Your task to perform on an android device: Open the calendar and show me this week's events? Image 0: 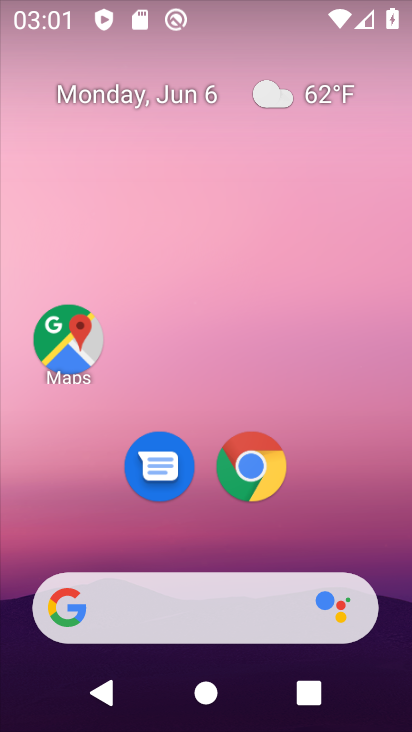
Step 0: drag from (363, 504) to (340, 130)
Your task to perform on an android device: Open the calendar and show me this week's events? Image 1: 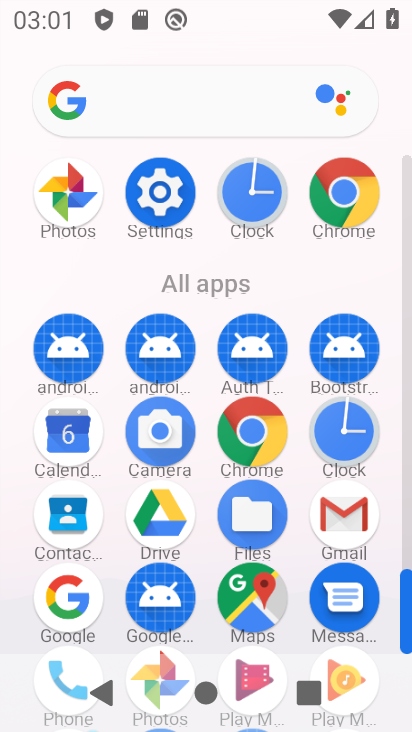
Step 1: drag from (295, 551) to (307, 243)
Your task to perform on an android device: Open the calendar and show me this week's events? Image 2: 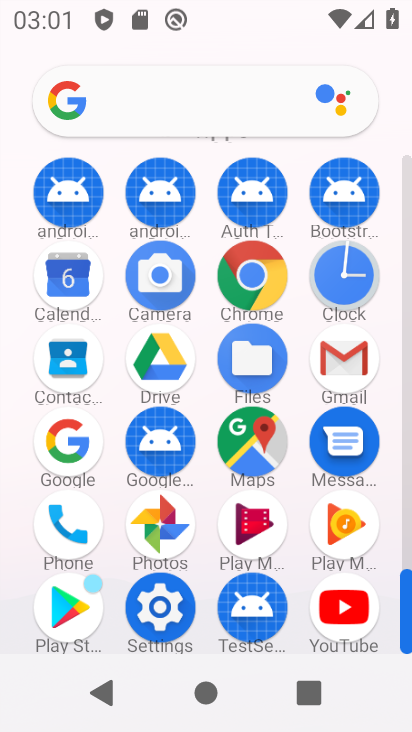
Step 2: click (79, 280)
Your task to perform on an android device: Open the calendar and show me this week's events? Image 3: 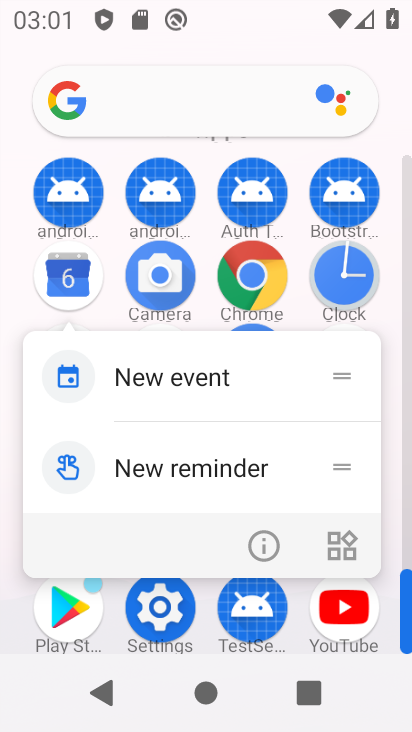
Step 3: click (68, 284)
Your task to perform on an android device: Open the calendar and show me this week's events? Image 4: 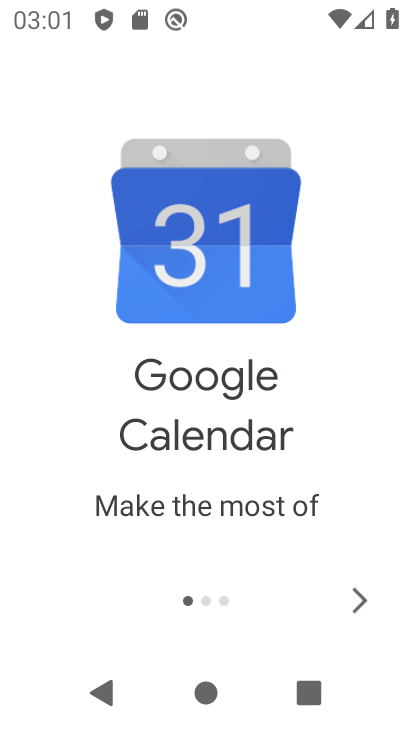
Step 4: drag from (68, 278) to (240, 443)
Your task to perform on an android device: Open the calendar and show me this week's events? Image 5: 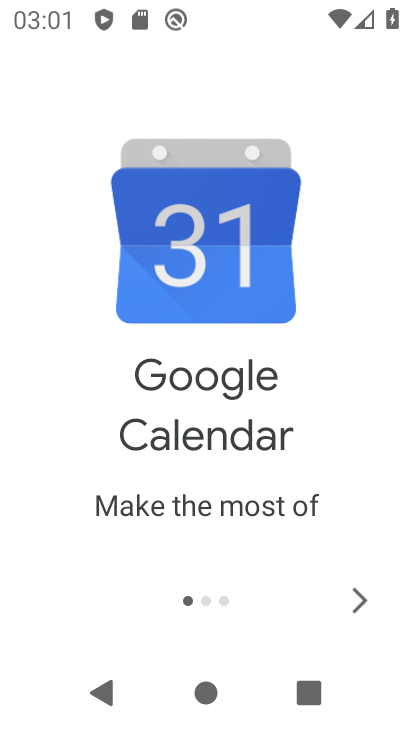
Step 5: click (355, 589)
Your task to perform on an android device: Open the calendar and show me this week's events? Image 6: 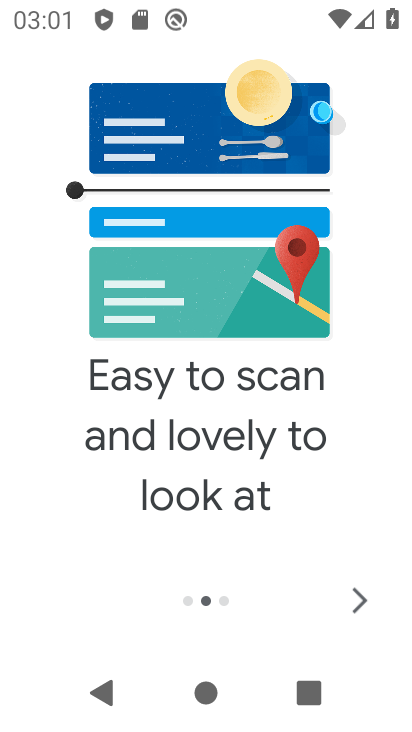
Step 6: click (355, 589)
Your task to perform on an android device: Open the calendar and show me this week's events? Image 7: 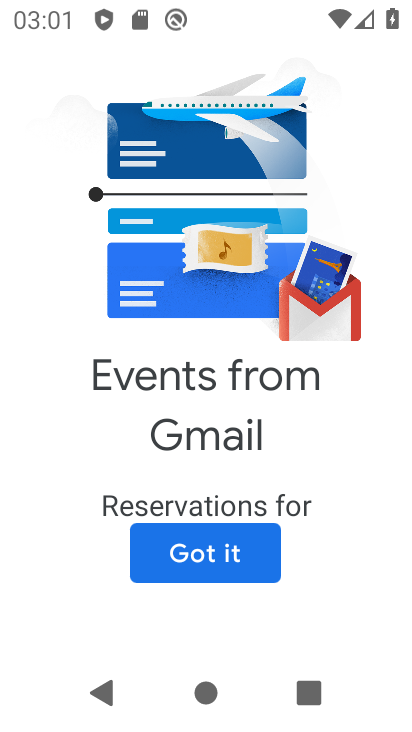
Step 7: click (245, 547)
Your task to perform on an android device: Open the calendar and show me this week's events? Image 8: 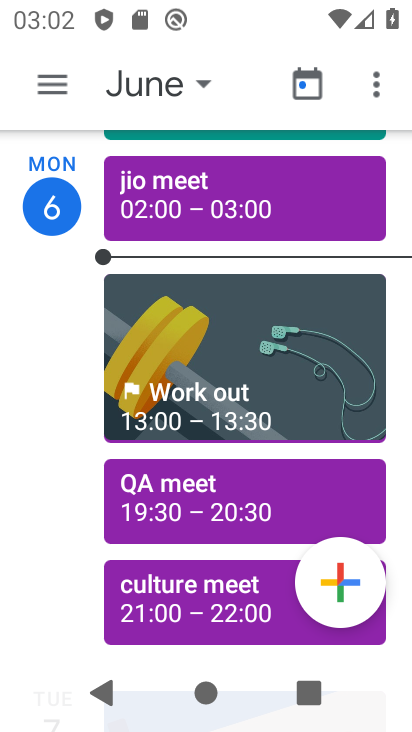
Step 8: click (154, 85)
Your task to perform on an android device: Open the calendar and show me this week's events? Image 9: 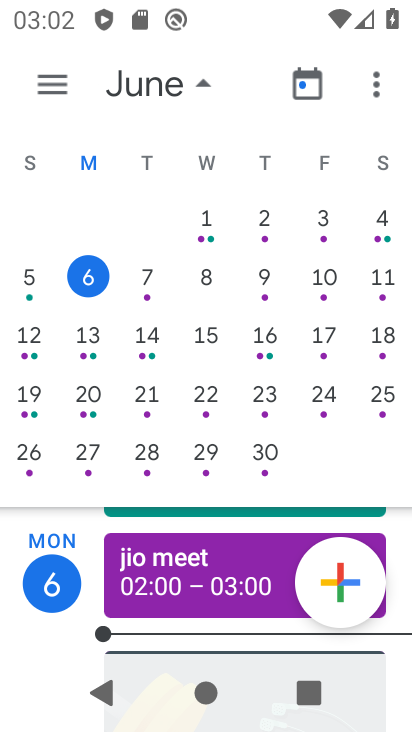
Step 9: click (48, 86)
Your task to perform on an android device: Open the calendar and show me this week's events? Image 10: 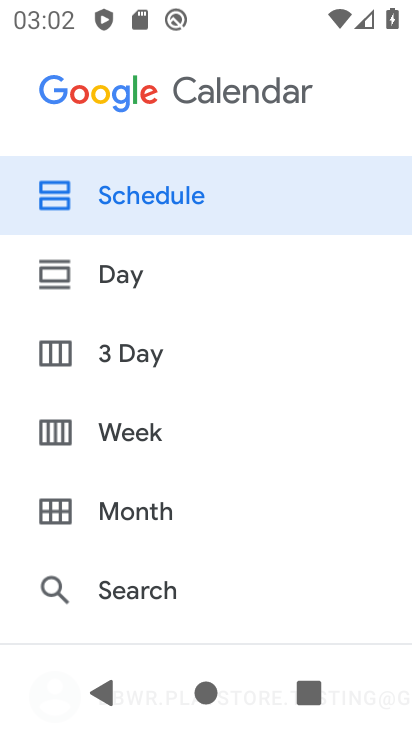
Step 10: click (130, 421)
Your task to perform on an android device: Open the calendar and show me this week's events? Image 11: 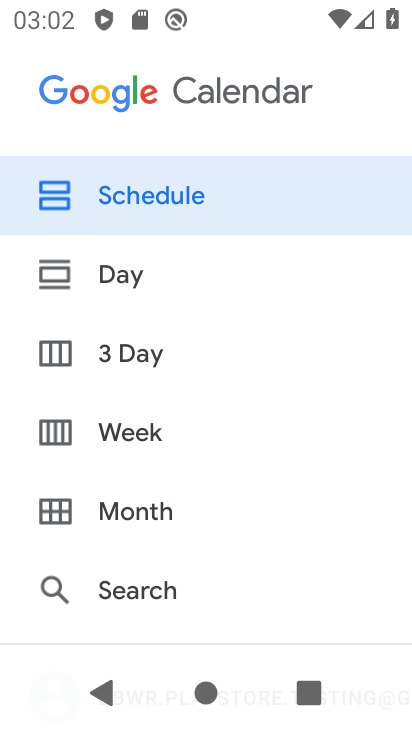
Step 11: click (147, 427)
Your task to perform on an android device: Open the calendar and show me this week's events? Image 12: 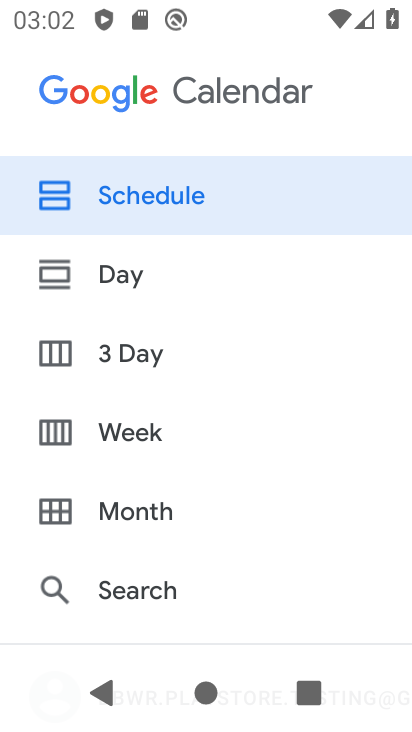
Step 12: click (143, 426)
Your task to perform on an android device: Open the calendar and show me this week's events? Image 13: 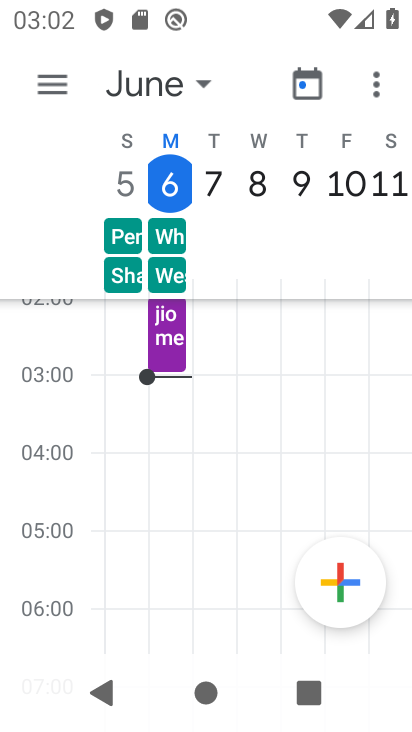
Step 13: task complete